Your task to perform on an android device: Show me the alarms in the clock app Image 0: 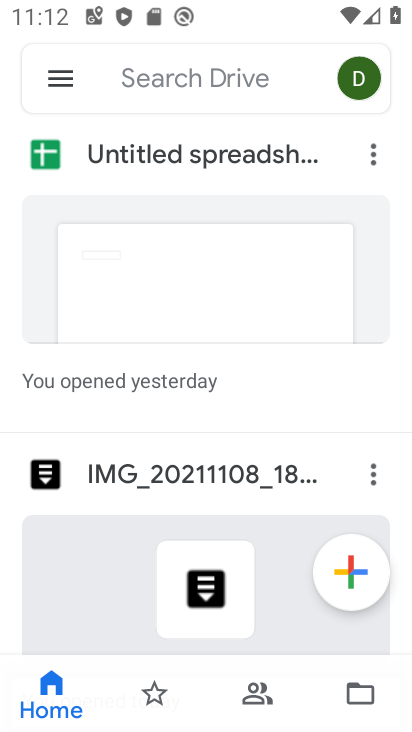
Step 0: press home button
Your task to perform on an android device: Show me the alarms in the clock app Image 1: 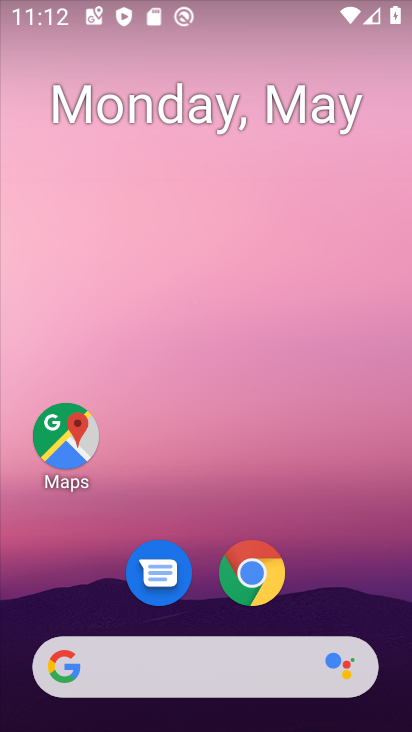
Step 1: drag from (343, 572) to (256, 60)
Your task to perform on an android device: Show me the alarms in the clock app Image 2: 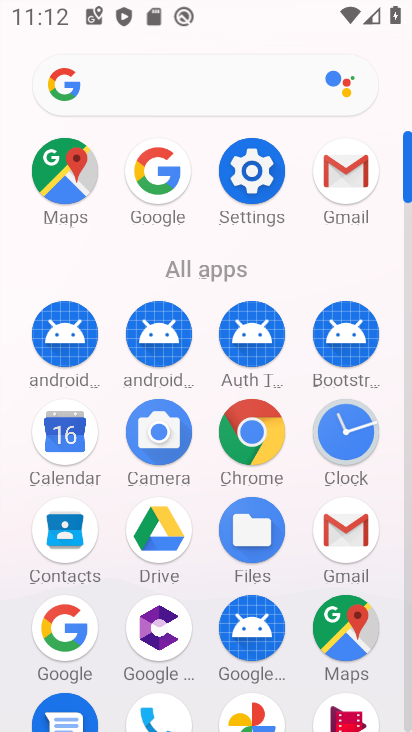
Step 2: click (375, 427)
Your task to perform on an android device: Show me the alarms in the clock app Image 3: 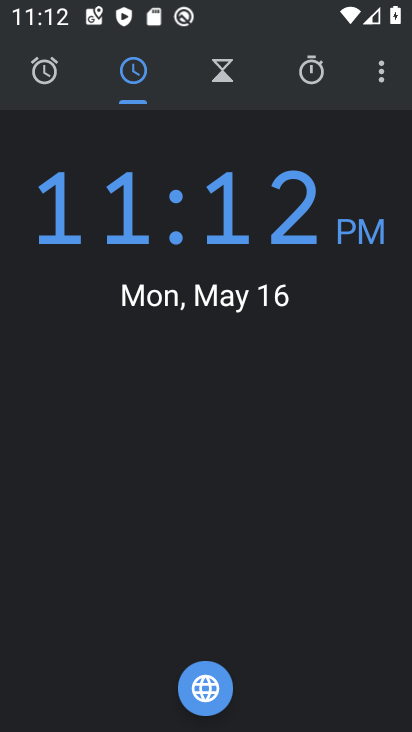
Step 3: click (48, 59)
Your task to perform on an android device: Show me the alarms in the clock app Image 4: 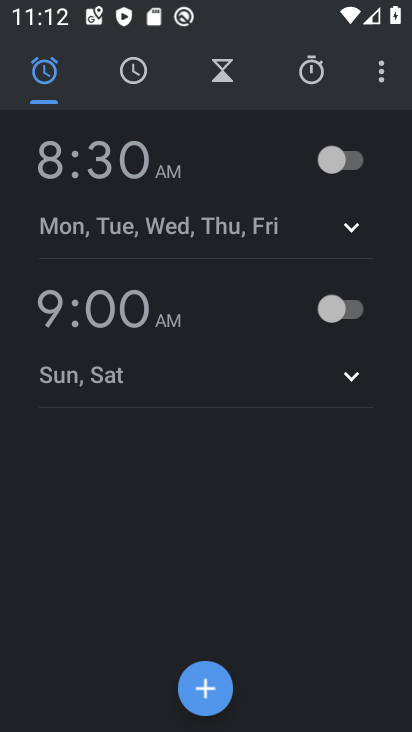
Step 4: task complete